Your task to perform on an android device: open chrome privacy settings Image 0: 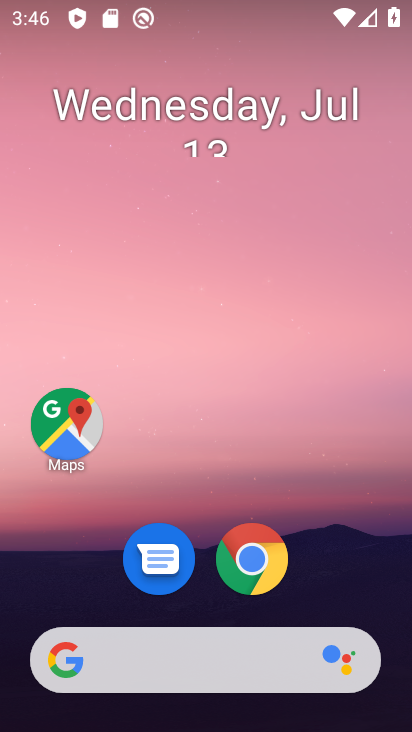
Step 0: drag from (240, 594) to (237, 166)
Your task to perform on an android device: open chrome privacy settings Image 1: 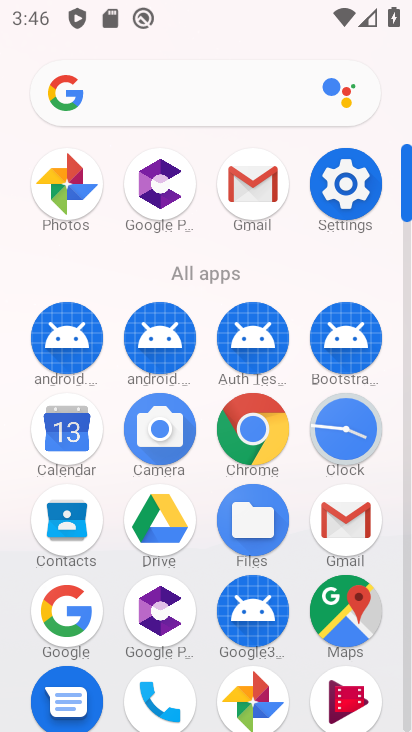
Step 1: click (362, 203)
Your task to perform on an android device: open chrome privacy settings Image 2: 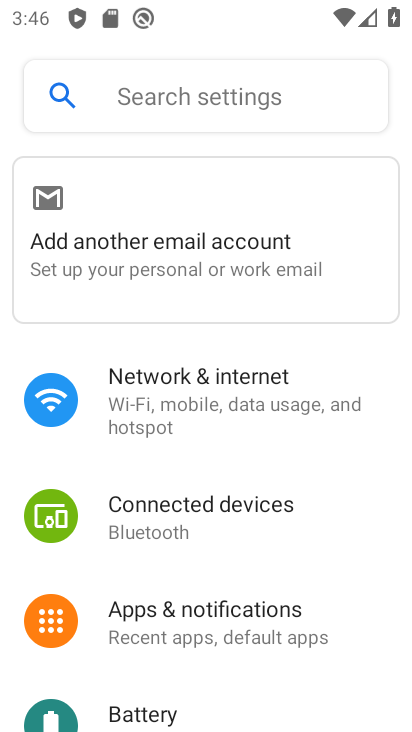
Step 2: press home button
Your task to perform on an android device: open chrome privacy settings Image 3: 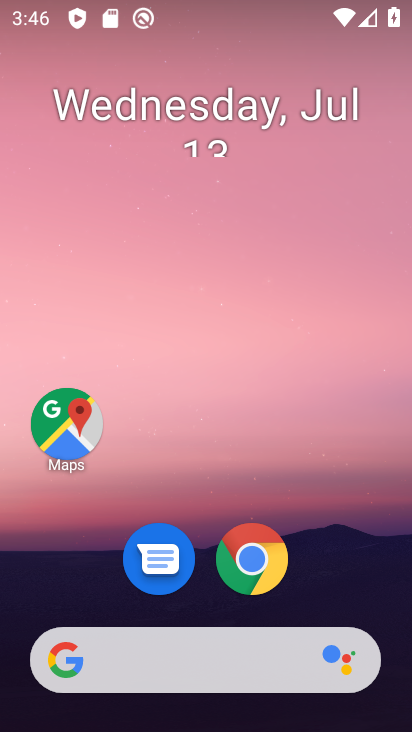
Step 3: click (282, 564)
Your task to perform on an android device: open chrome privacy settings Image 4: 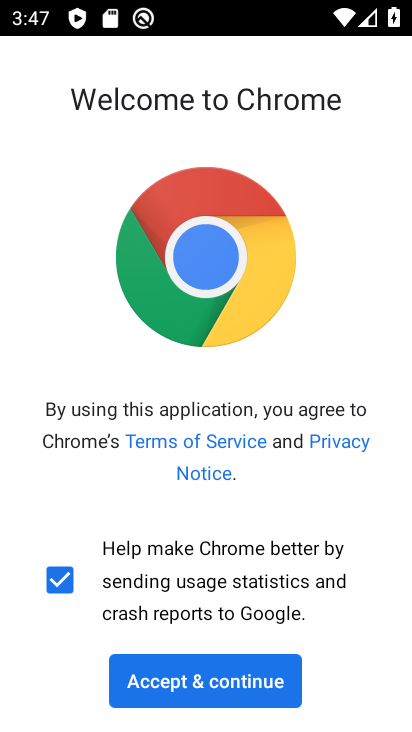
Step 4: click (265, 682)
Your task to perform on an android device: open chrome privacy settings Image 5: 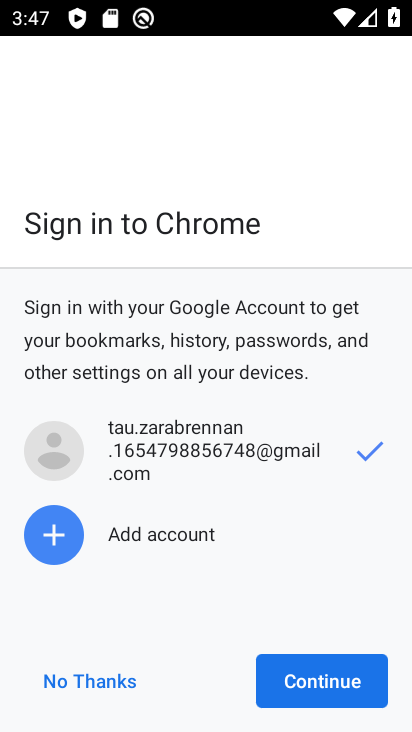
Step 5: click (296, 691)
Your task to perform on an android device: open chrome privacy settings Image 6: 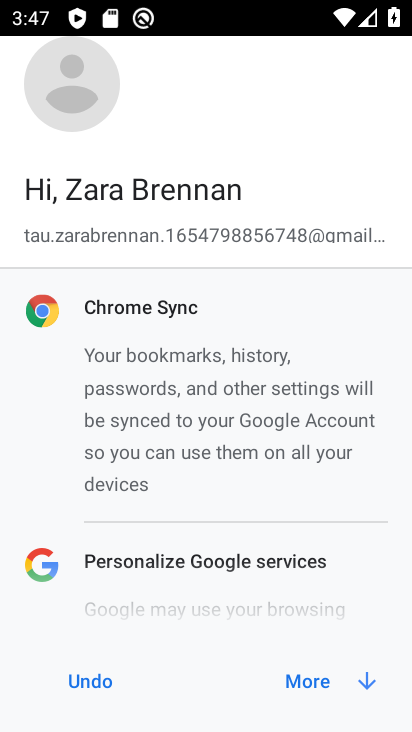
Step 6: click (296, 691)
Your task to perform on an android device: open chrome privacy settings Image 7: 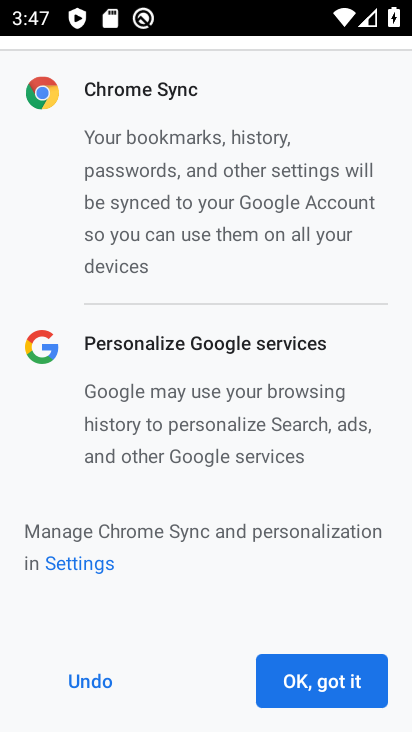
Step 7: click (295, 690)
Your task to perform on an android device: open chrome privacy settings Image 8: 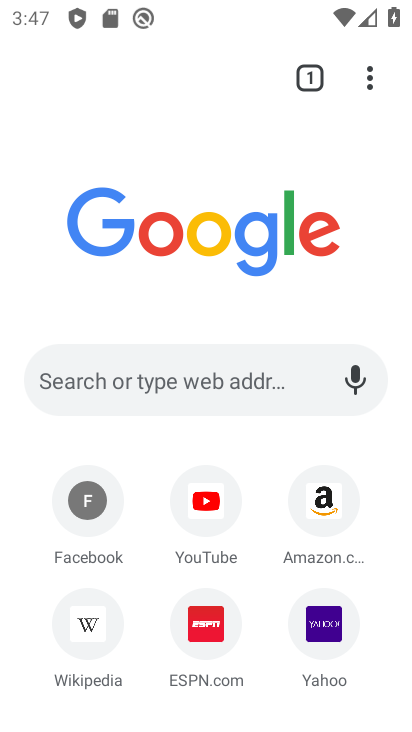
Step 8: click (381, 72)
Your task to perform on an android device: open chrome privacy settings Image 9: 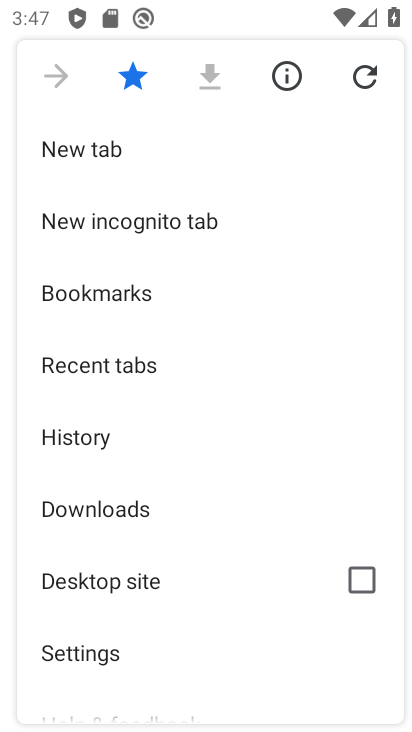
Step 9: drag from (121, 563) to (128, 166)
Your task to perform on an android device: open chrome privacy settings Image 10: 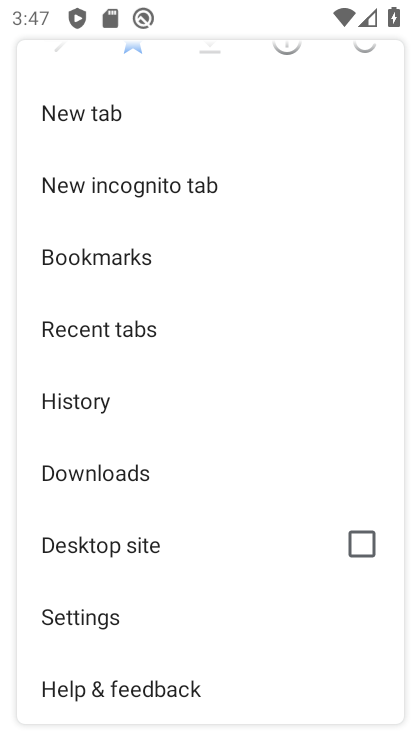
Step 10: click (97, 621)
Your task to perform on an android device: open chrome privacy settings Image 11: 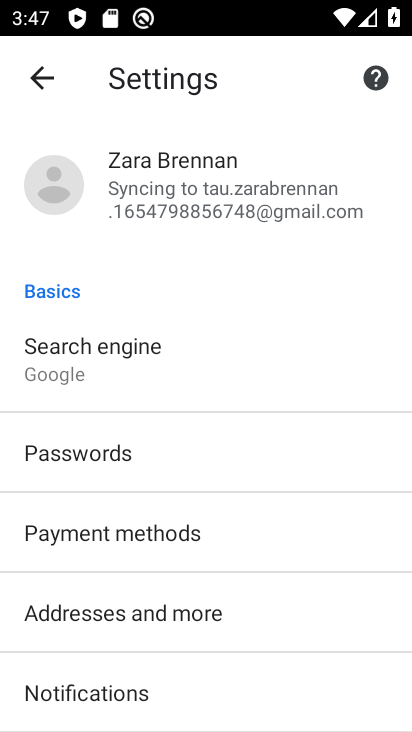
Step 11: drag from (98, 528) to (136, 259)
Your task to perform on an android device: open chrome privacy settings Image 12: 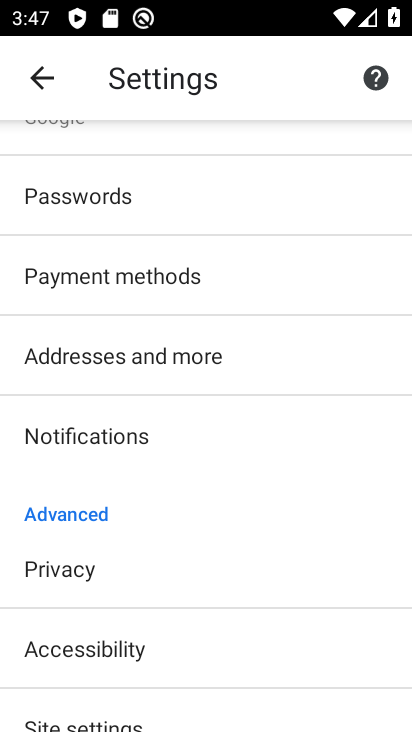
Step 12: click (78, 583)
Your task to perform on an android device: open chrome privacy settings Image 13: 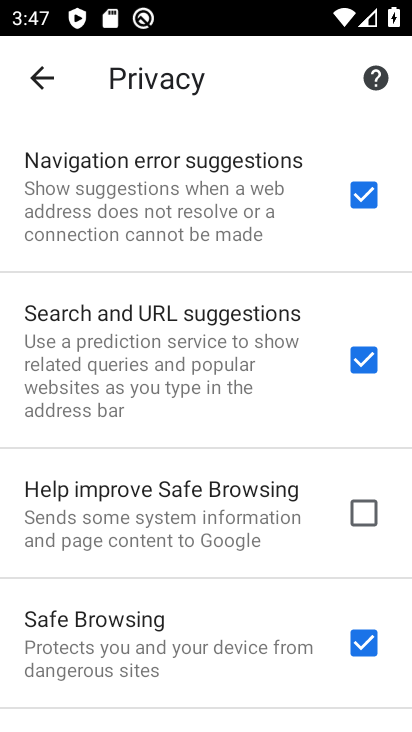
Step 13: task complete